Your task to perform on an android device: set the stopwatch Image 0: 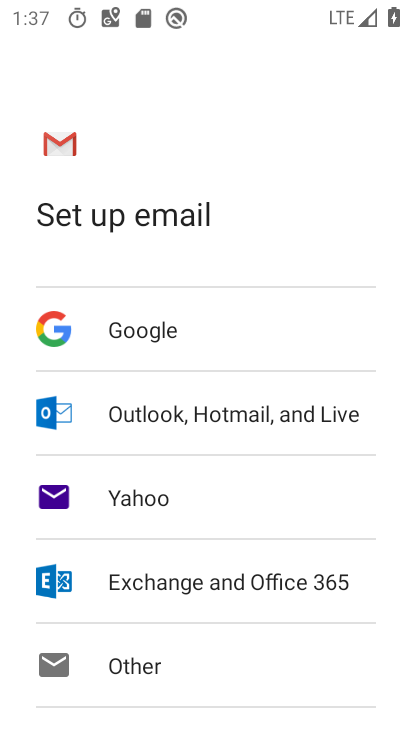
Step 0: press home button
Your task to perform on an android device: set the stopwatch Image 1: 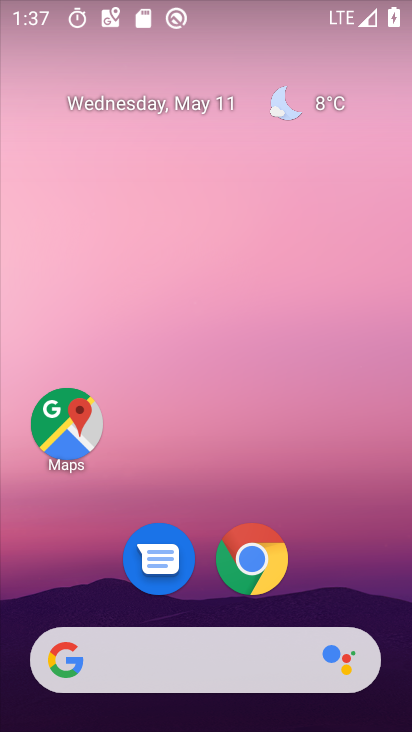
Step 1: drag from (200, 724) to (194, 193)
Your task to perform on an android device: set the stopwatch Image 2: 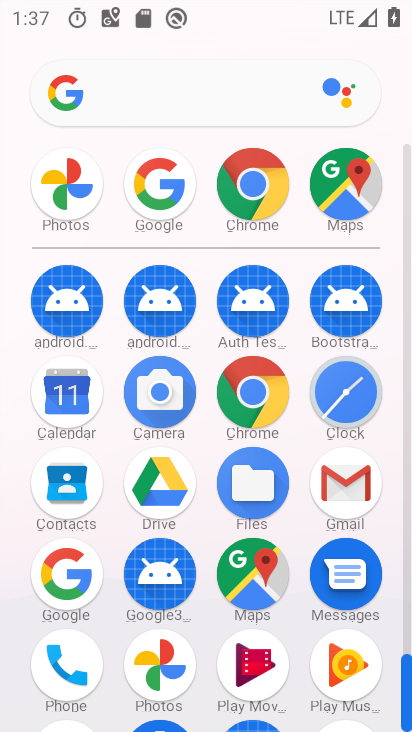
Step 2: click (334, 391)
Your task to perform on an android device: set the stopwatch Image 3: 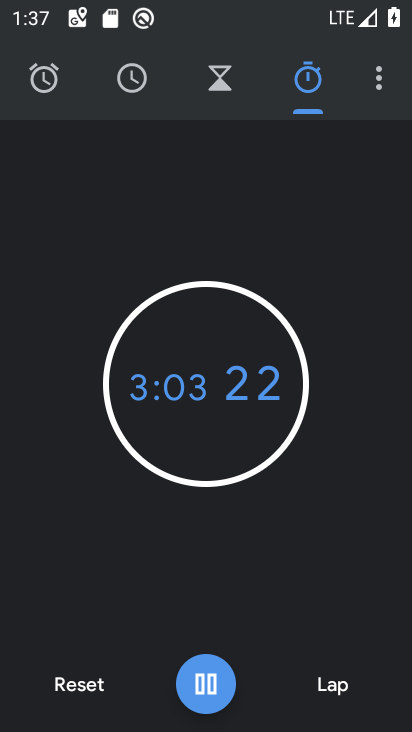
Step 3: click (227, 388)
Your task to perform on an android device: set the stopwatch Image 4: 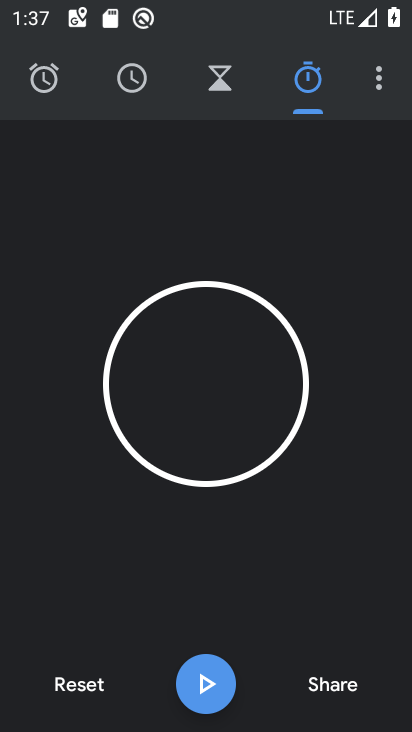
Step 4: click (215, 681)
Your task to perform on an android device: set the stopwatch Image 5: 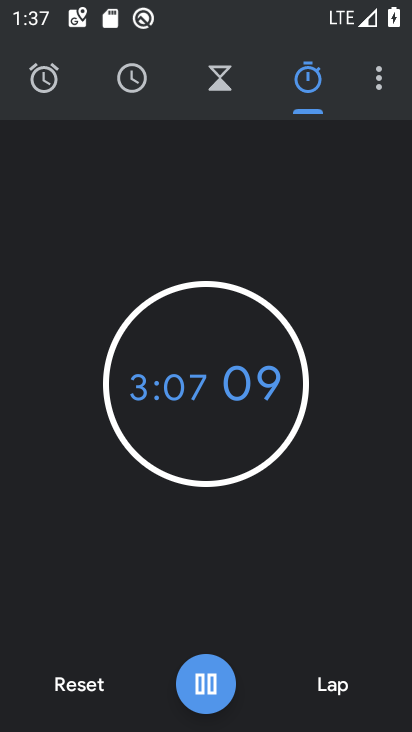
Step 5: task complete